Your task to perform on an android device: Go to sound settings Image 0: 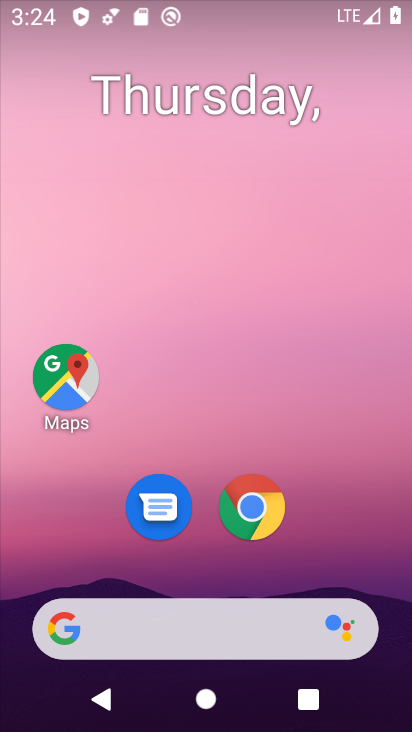
Step 0: drag from (342, 527) to (334, 37)
Your task to perform on an android device: Go to sound settings Image 1: 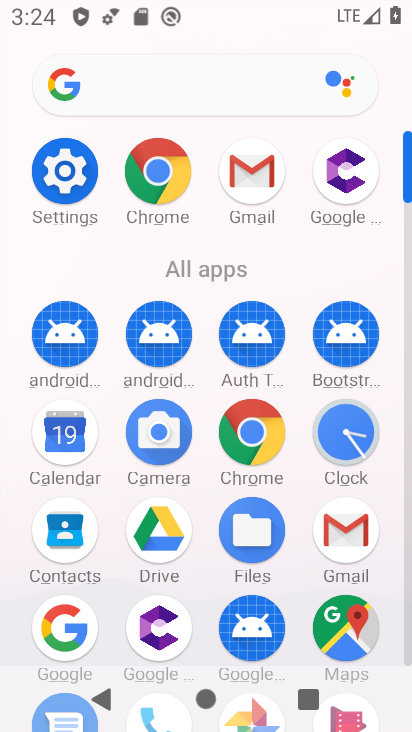
Step 1: click (49, 195)
Your task to perform on an android device: Go to sound settings Image 2: 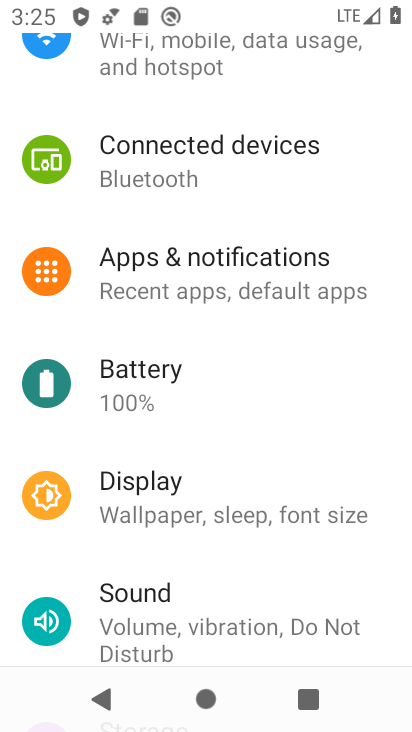
Step 2: click (200, 624)
Your task to perform on an android device: Go to sound settings Image 3: 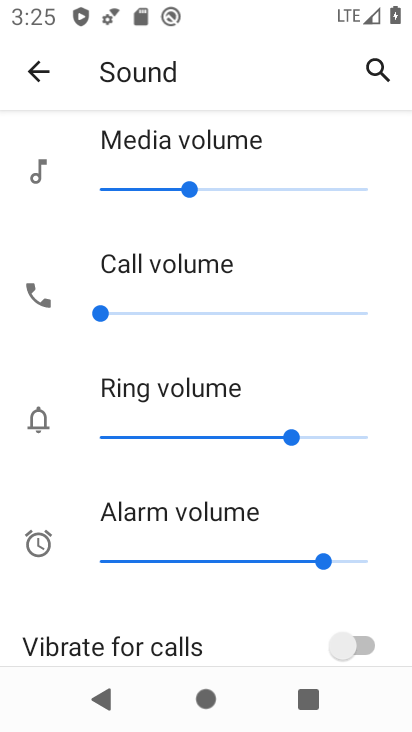
Step 3: drag from (178, 614) to (172, 435)
Your task to perform on an android device: Go to sound settings Image 4: 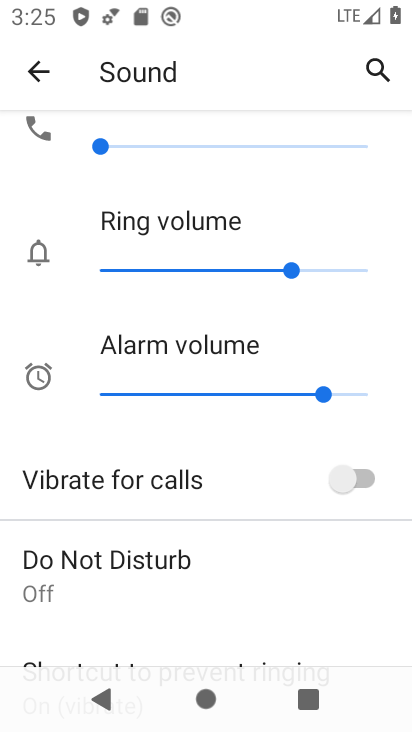
Step 4: drag from (218, 563) to (249, 333)
Your task to perform on an android device: Go to sound settings Image 5: 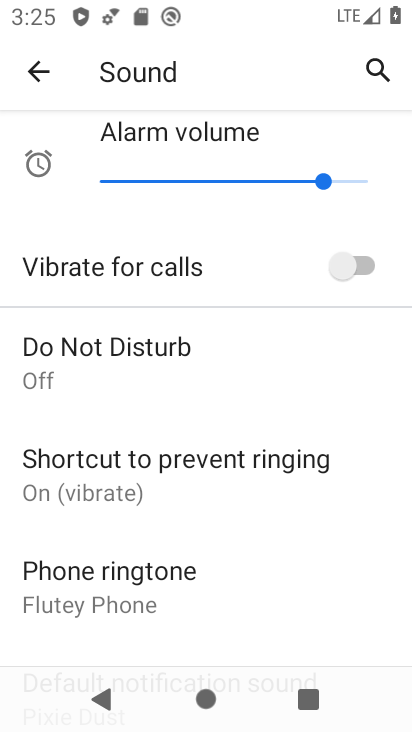
Step 5: drag from (201, 575) to (206, 385)
Your task to perform on an android device: Go to sound settings Image 6: 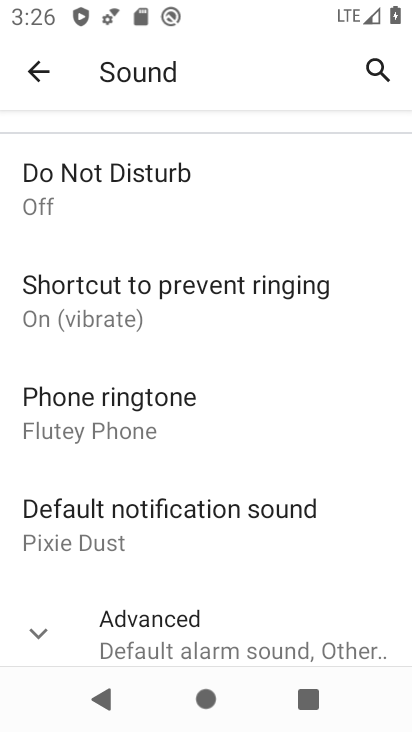
Step 6: click (177, 625)
Your task to perform on an android device: Go to sound settings Image 7: 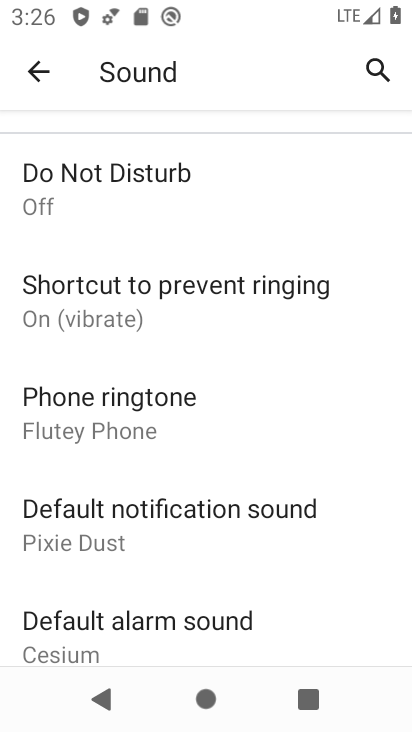
Step 7: task complete